Your task to perform on an android device: Go to location settings Image 0: 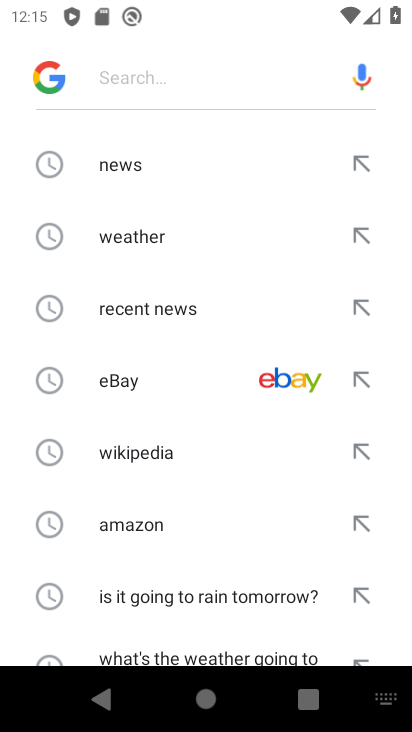
Step 0: press back button
Your task to perform on an android device: Go to location settings Image 1: 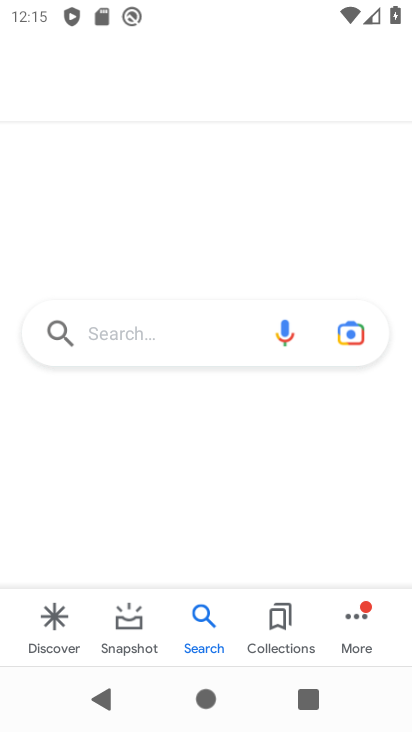
Step 1: press back button
Your task to perform on an android device: Go to location settings Image 2: 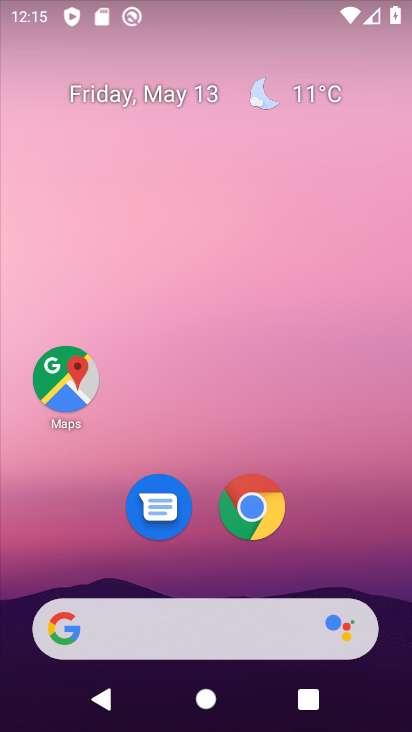
Step 2: drag from (218, 561) to (209, 15)
Your task to perform on an android device: Go to location settings Image 3: 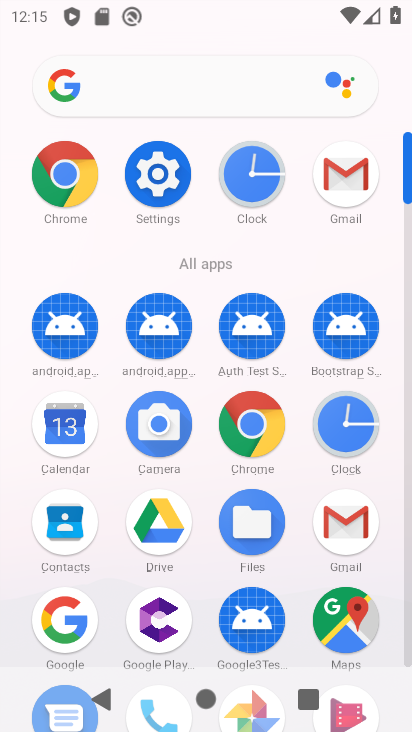
Step 3: drag from (182, 182) to (225, 182)
Your task to perform on an android device: Go to location settings Image 4: 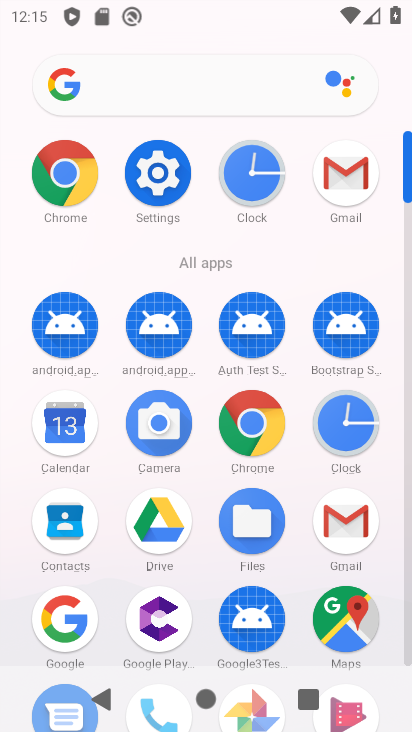
Step 4: click (164, 179)
Your task to perform on an android device: Go to location settings Image 5: 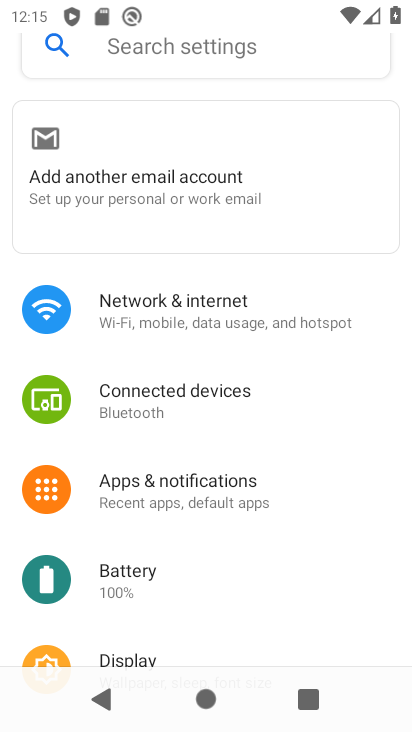
Step 5: drag from (153, 488) to (123, 29)
Your task to perform on an android device: Go to location settings Image 6: 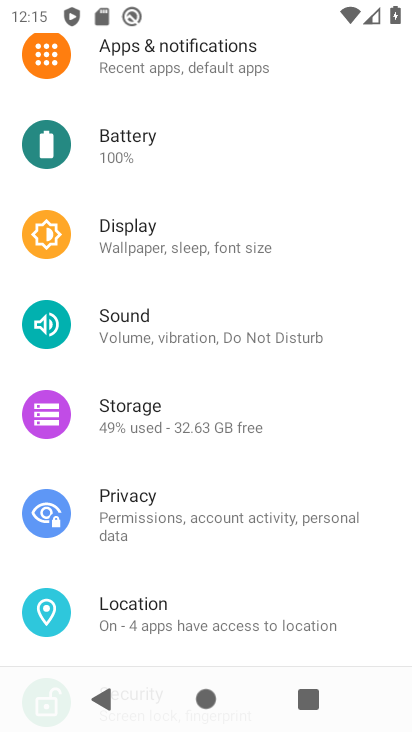
Step 6: click (180, 607)
Your task to perform on an android device: Go to location settings Image 7: 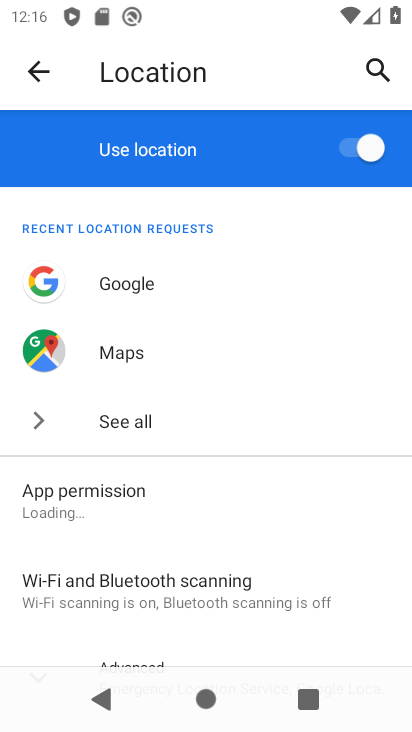
Step 7: task complete